Your task to perform on an android device: What's on my calendar today? Image 0: 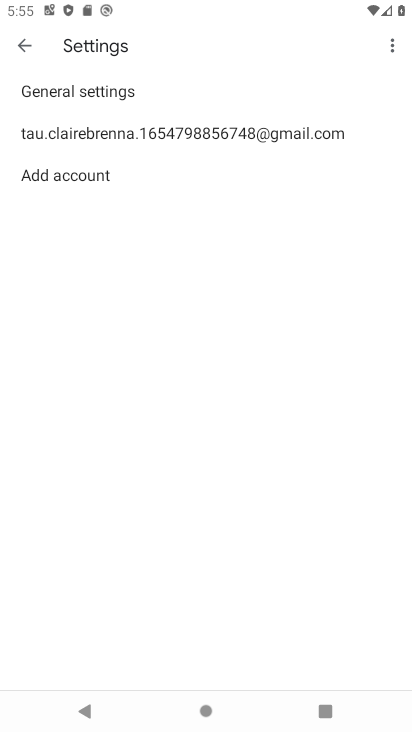
Step 0: press home button
Your task to perform on an android device: What's on my calendar today? Image 1: 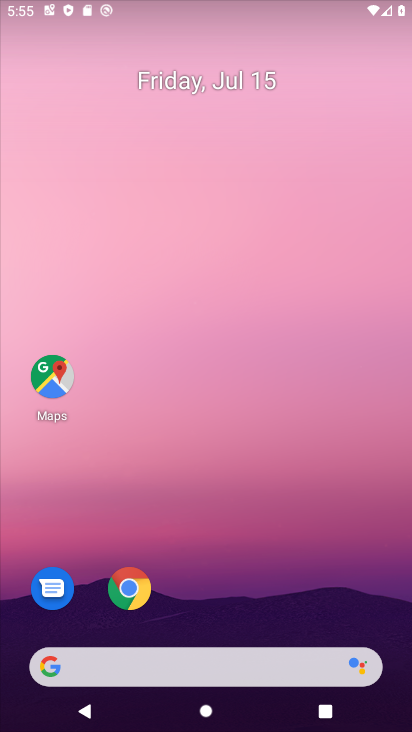
Step 1: drag from (268, 649) to (284, 12)
Your task to perform on an android device: What's on my calendar today? Image 2: 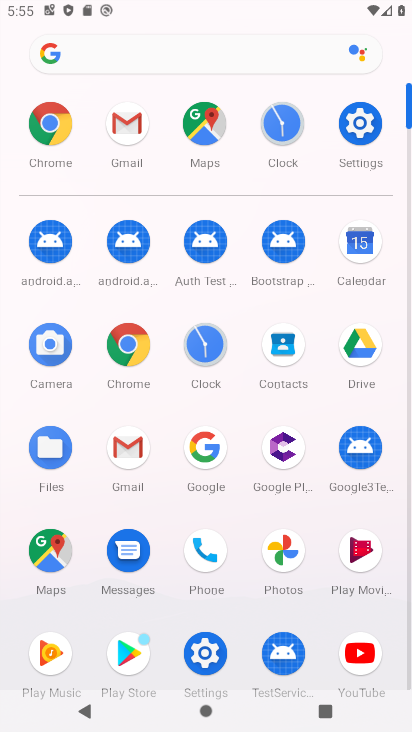
Step 2: click (351, 252)
Your task to perform on an android device: What's on my calendar today? Image 3: 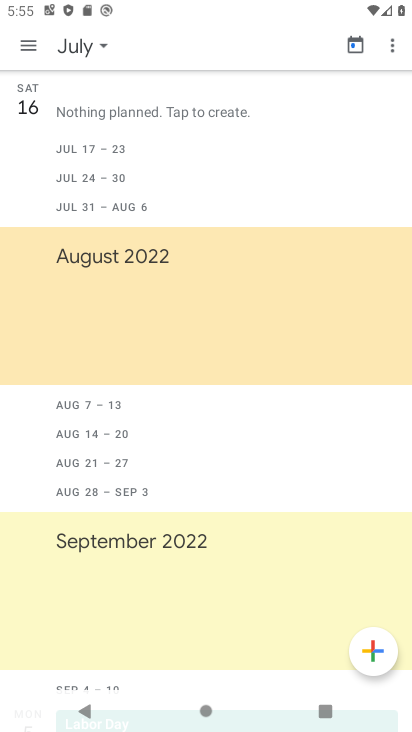
Step 3: task complete